Your task to perform on an android device: Search for sushi restaurants on Maps Image 0: 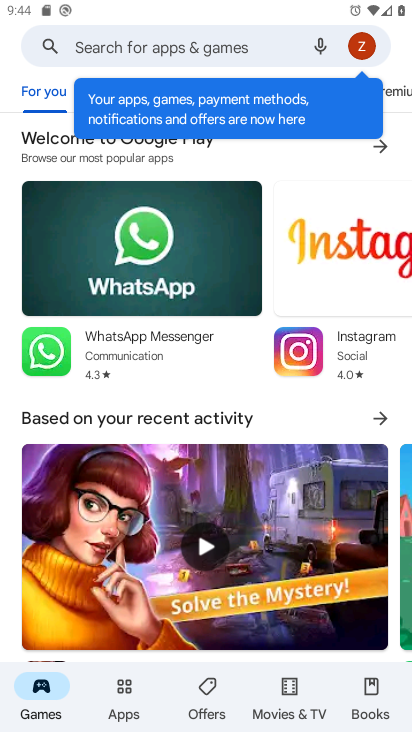
Step 0: press home button
Your task to perform on an android device: Search for sushi restaurants on Maps Image 1: 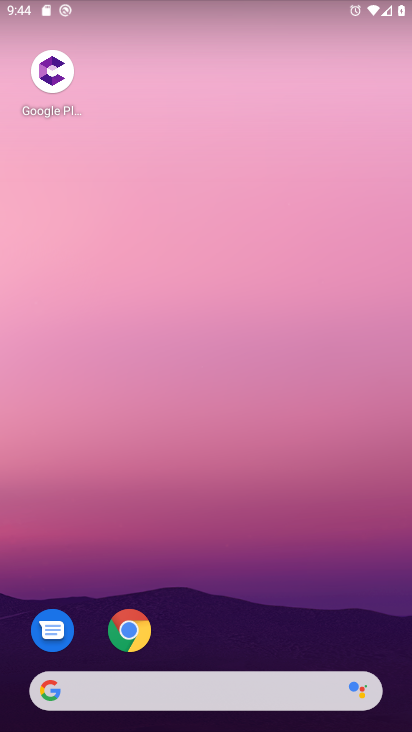
Step 1: drag from (137, 675) to (84, 224)
Your task to perform on an android device: Search for sushi restaurants on Maps Image 2: 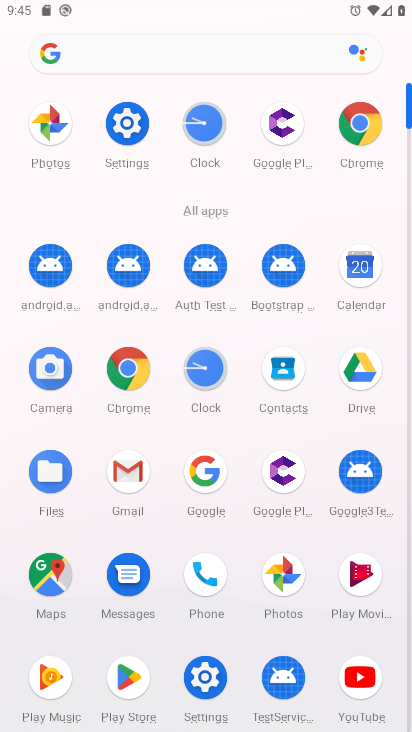
Step 2: click (51, 585)
Your task to perform on an android device: Search for sushi restaurants on Maps Image 3: 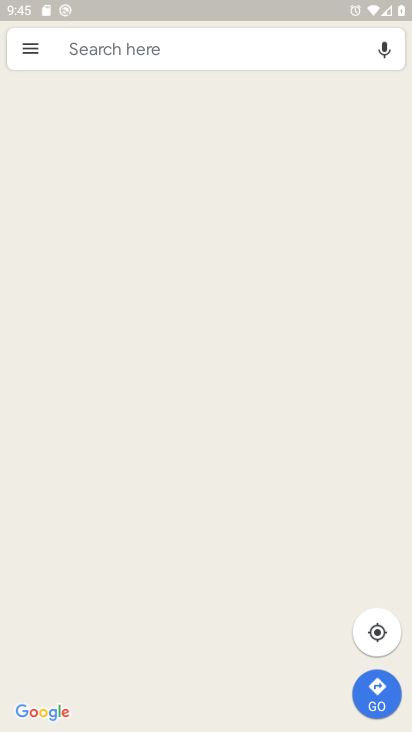
Step 3: click (206, 56)
Your task to perform on an android device: Search for sushi restaurants on Maps Image 4: 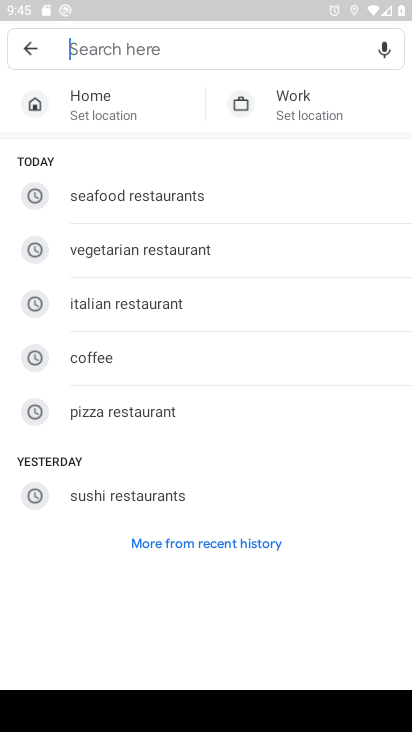
Step 4: type "sushi restaurants"
Your task to perform on an android device: Search for sushi restaurants on Maps Image 5: 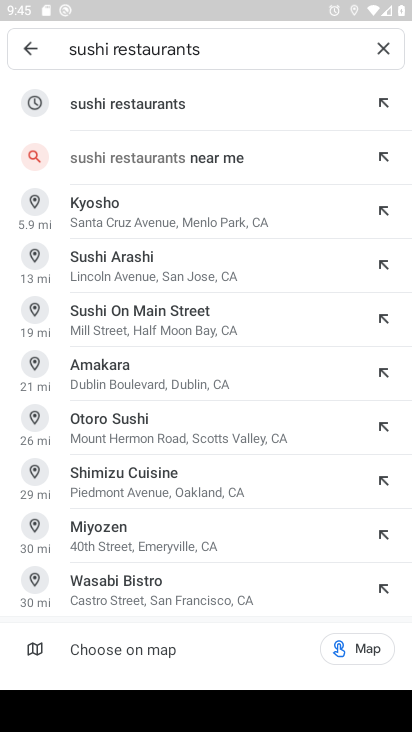
Step 5: click (105, 100)
Your task to perform on an android device: Search for sushi restaurants on Maps Image 6: 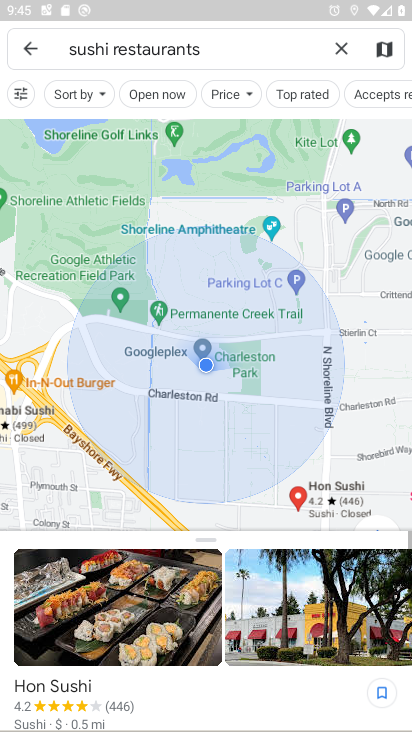
Step 6: task complete